Your task to perform on an android device: toggle pop-ups in chrome Image 0: 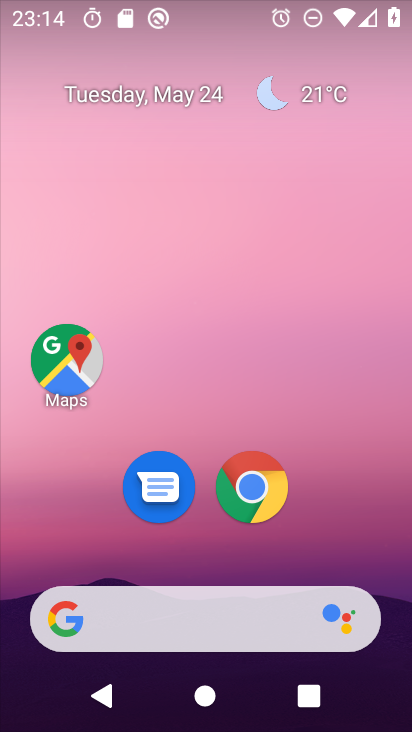
Step 0: click (268, 488)
Your task to perform on an android device: toggle pop-ups in chrome Image 1: 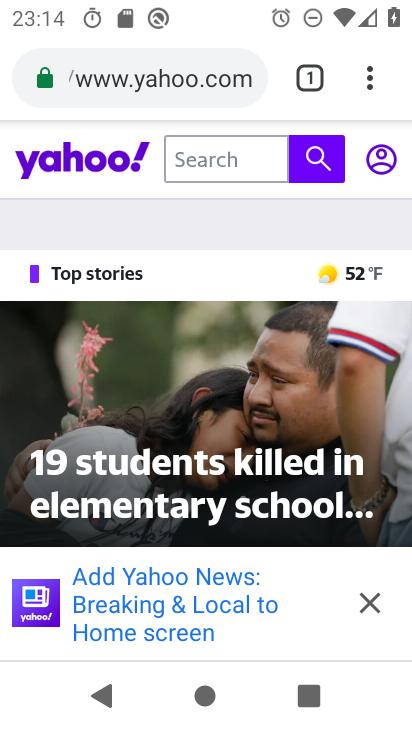
Step 1: click (369, 80)
Your task to perform on an android device: toggle pop-ups in chrome Image 2: 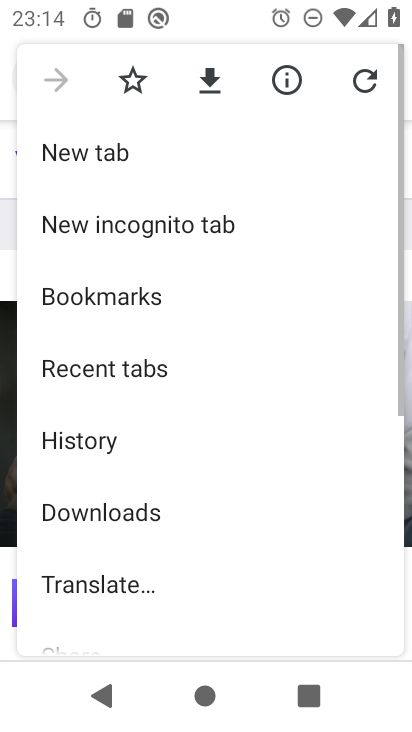
Step 2: drag from (231, 554) to (204, 94)
Your task to perform on an android device: toggle pop-ups in chrome Image 3: 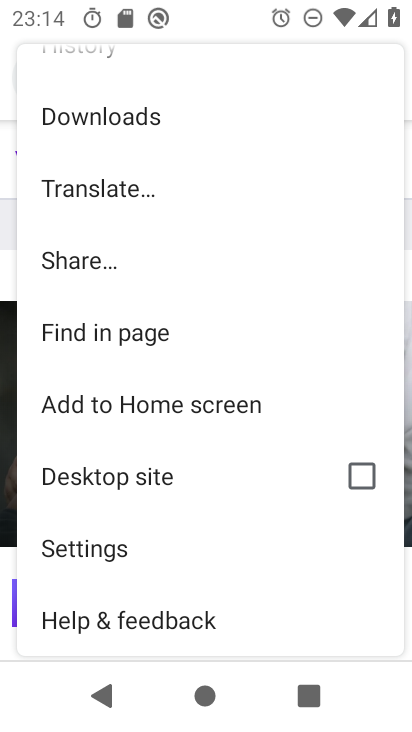
Step 3: click (106, 558)
Your task to perform on an android device: toggle pop-ups in chrome Image 4: 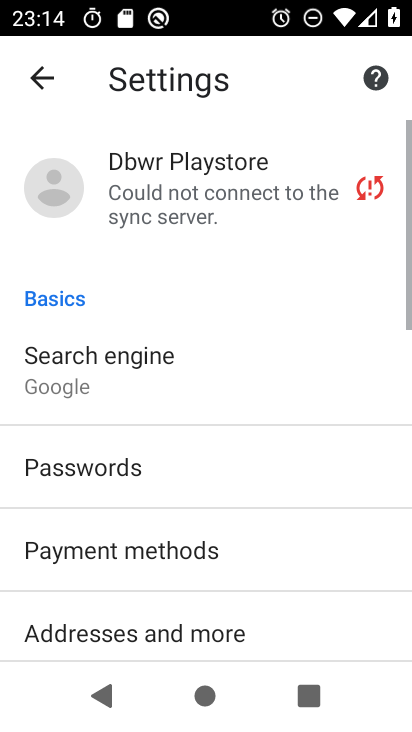
Step 4: drag from (210, 604) to (212, 110)
Your task to perform on an android device: toggle pop-ups in chrome Image 5: 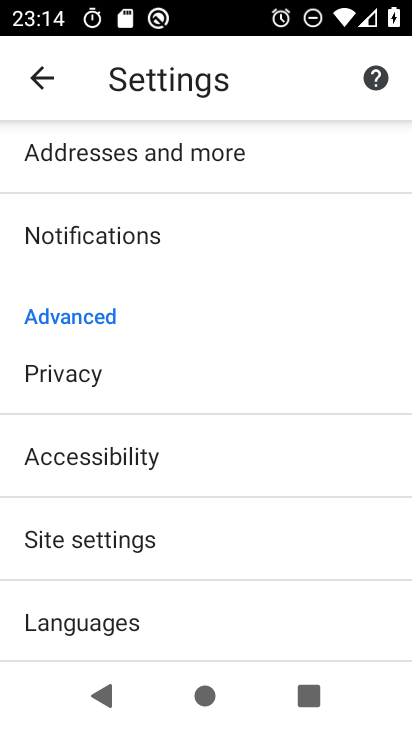
Step 5: click (123, 545)
Your task to perform on an android device: toggle pop-ups in chrome Image 6: 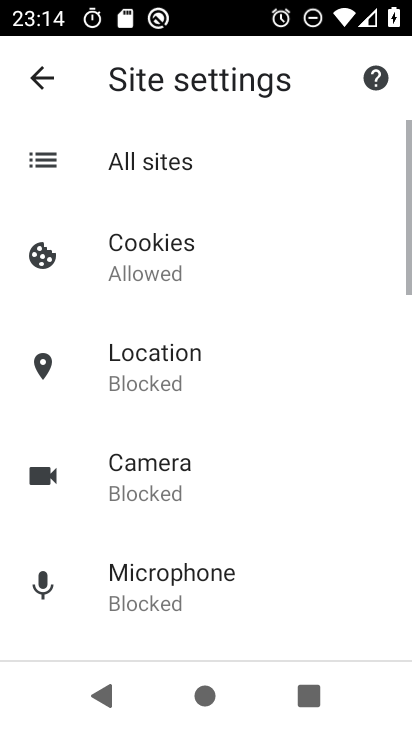
Step 6: drag from (219, 582) to (192, 245)
Your task to perform on an android device: toggle pop-ups in chrome Image 7: 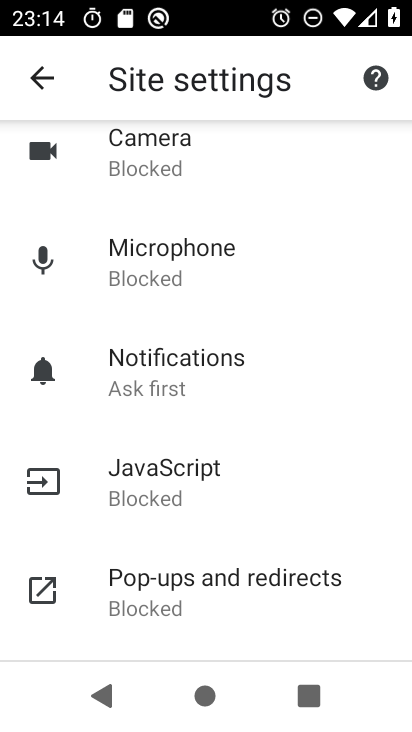
Step 7: click (170, 597)
Your task to perform on an android device: toggle pop-ups in chrome Image 8: 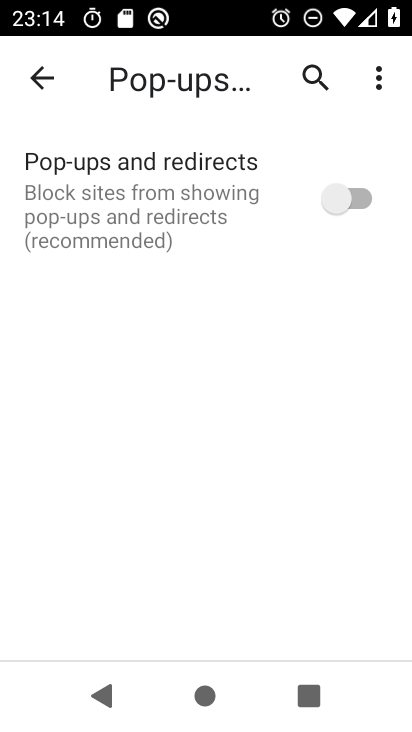
Step 8: click (342, 205)
Your task to perform on an android device: toggle pop-ups in chrome Image 9: 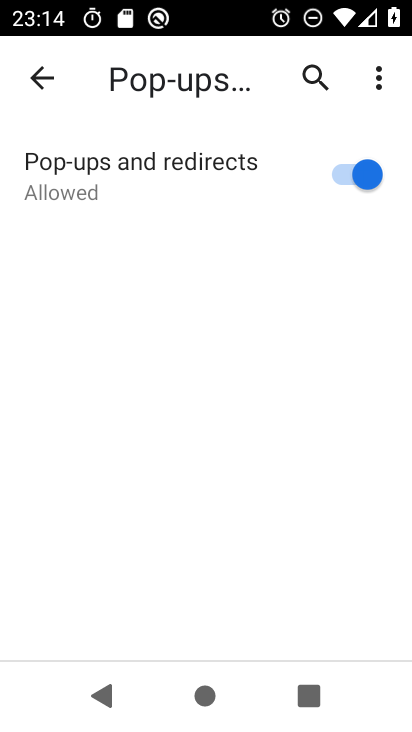
Step 9: task complete